Your task to perform on an android device: Open Google Maps and go to "Timeline" Image 0: 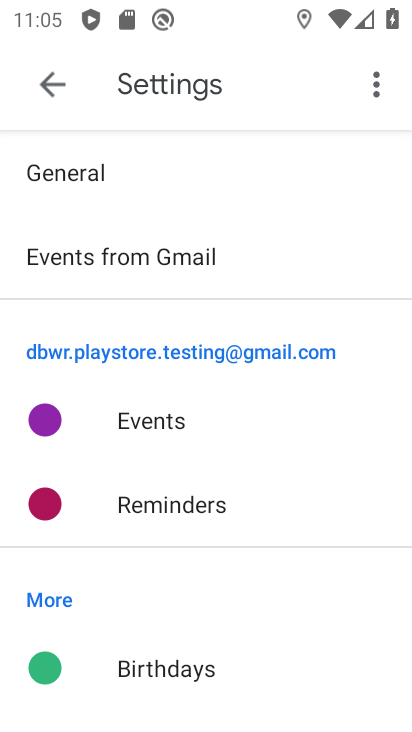
Step 0: press home button
Your task to perform on an android device: Open Google Maps and go to "Timeline" Image 1: 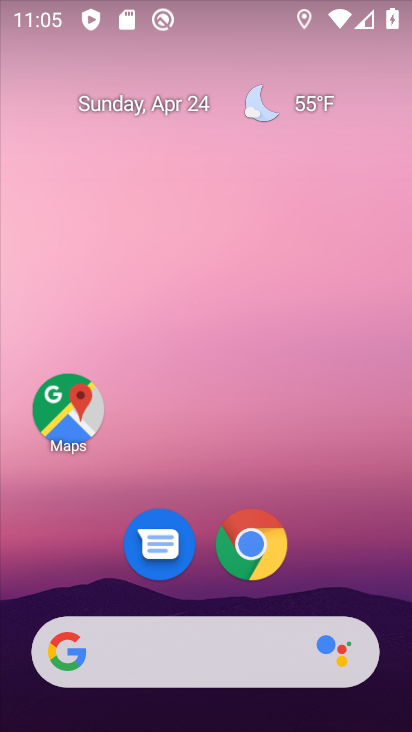
Step 1: click (84, 421)
Your task to perform on an android device: Open Google Maps and go to "Timeline" Image 2: 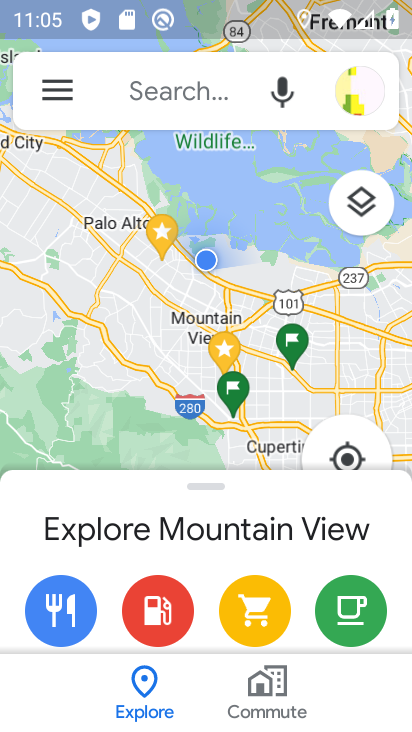
Step 2: click (61, 87)
Your task to perform on an android device: Open Google Maps and go to "Timeline" Image 3: 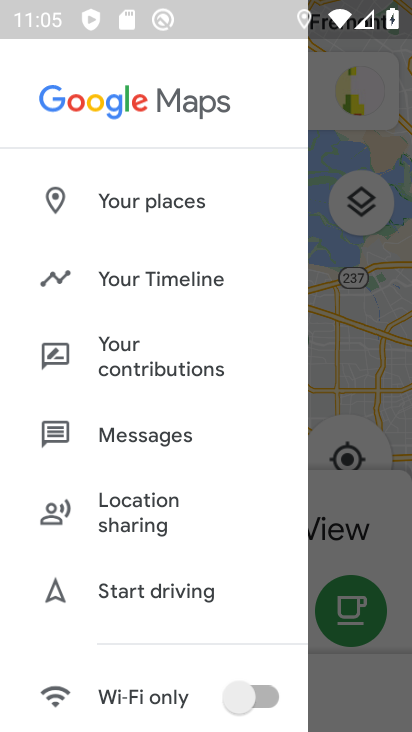
Step 3: click (166, 268)
Your task to perform on an android device: Open Google Maps and go to "Timeline" Image 4: 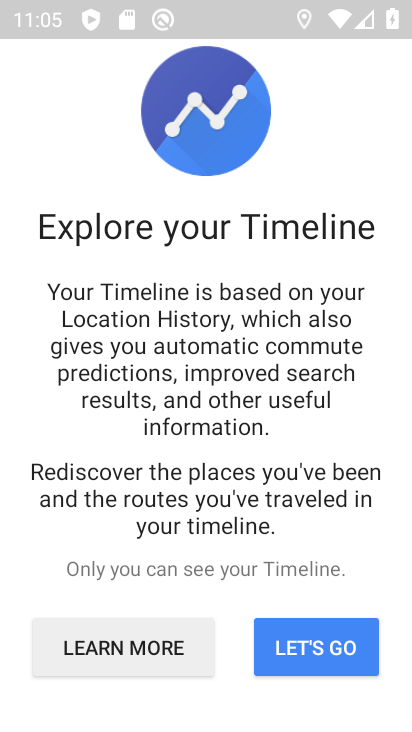
Step 4: task complete